Your task to perform on an android device: turn on priority inbox in the gmail app Image 0: 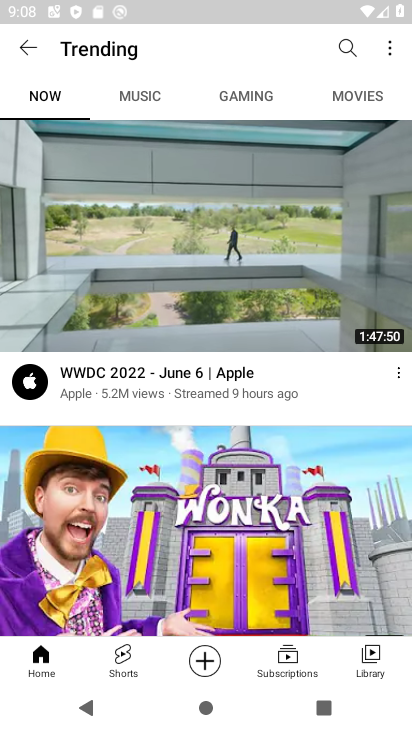
Step 0: press home button
Your task to perform on an android device: turn on priority inbox in the gmail app Image 1: 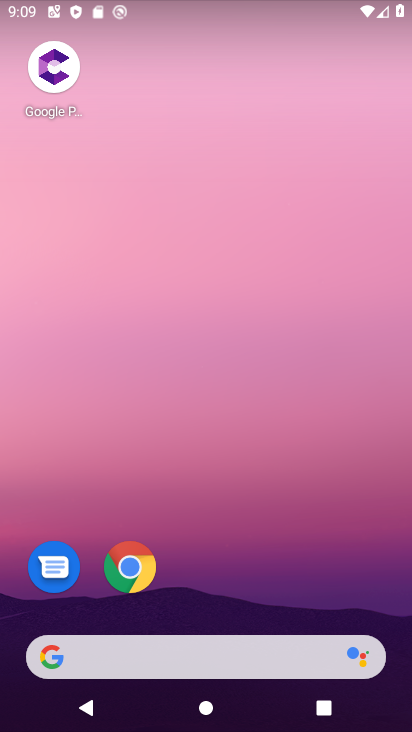
Step 1: drag from (212, 472) to (226, 98)
Your task to perform on an android device: turn on priority inbox in the gmail app Image 2: 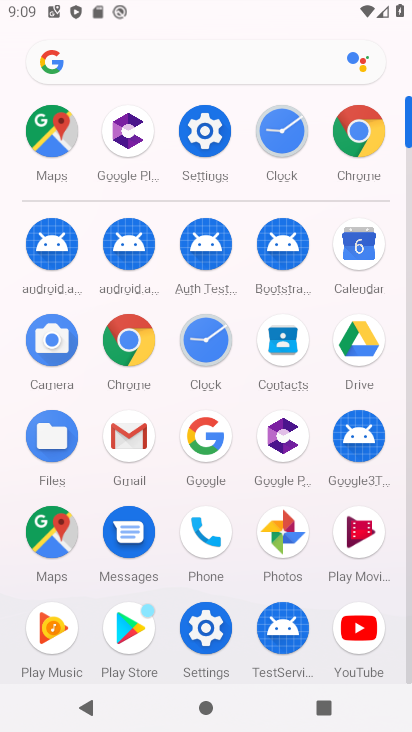
Step 2: click (143, 421)
Your task to perform on an android device: turn on priority inbox in the gmail app Image 3: 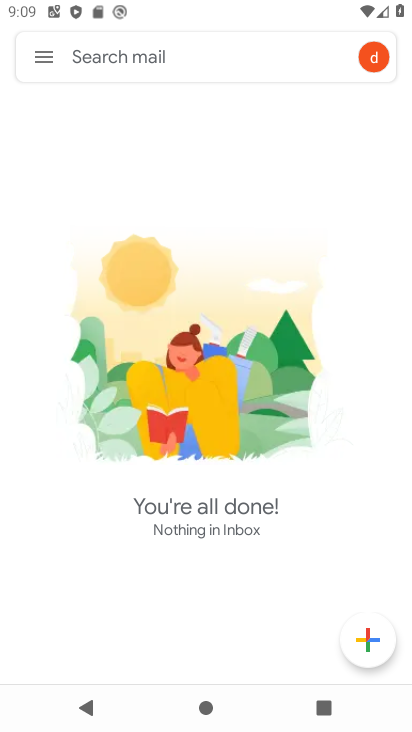
Step 3: click (43, 69)
Your task to perform on an android device: turn on priority inbox in the gmail app Image 4: 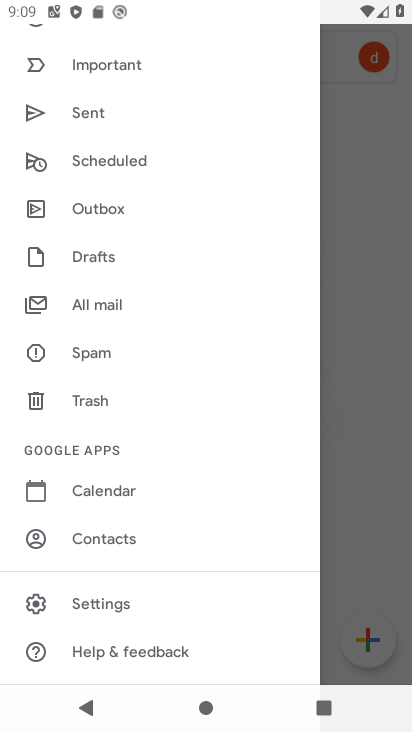
Step 4: click (90, 622)
Your task to perform on an android device: turn on priority inbox in the gmail app Image 5: 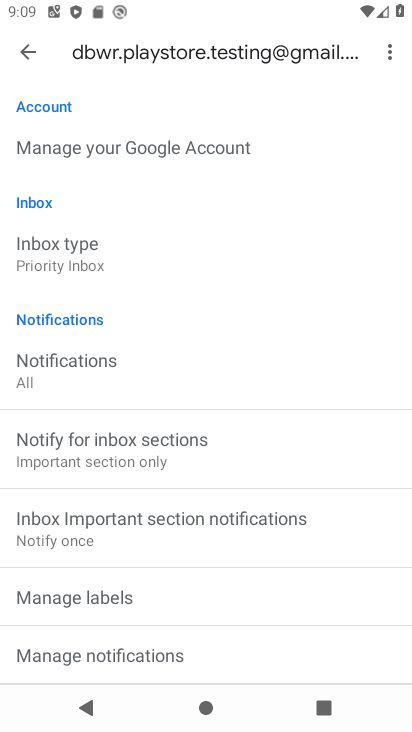
Step 5: task complete